Your task to perform on an android device: move an email to a new category in the gmail app Image 0: 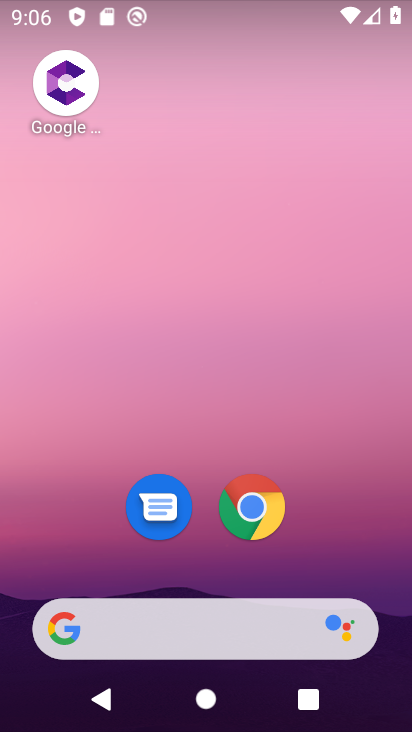
Step 0: drag from (331, 447) to (269, 104)
Your task to perform on an android device: move an email to a new category in the gmail app Image 1: 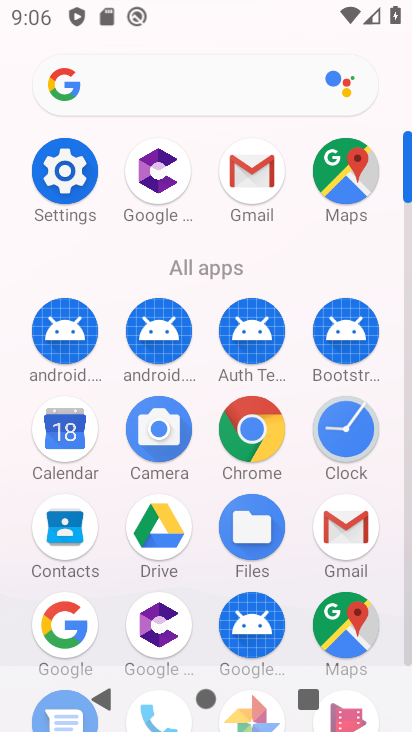
Step 1: click (233, 152)
Your task to perform on an android device: move an email to a new category in the gmail app Image 2: 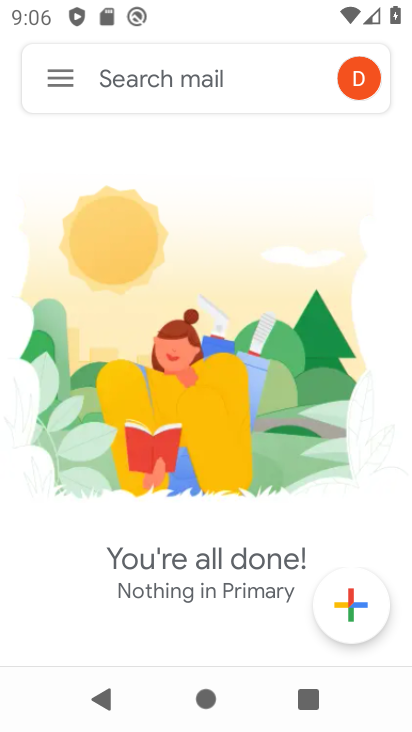
Step 2: click (74, 97)
Your task to perform on an android device: move an email to a new category in the gmail app Image 3: 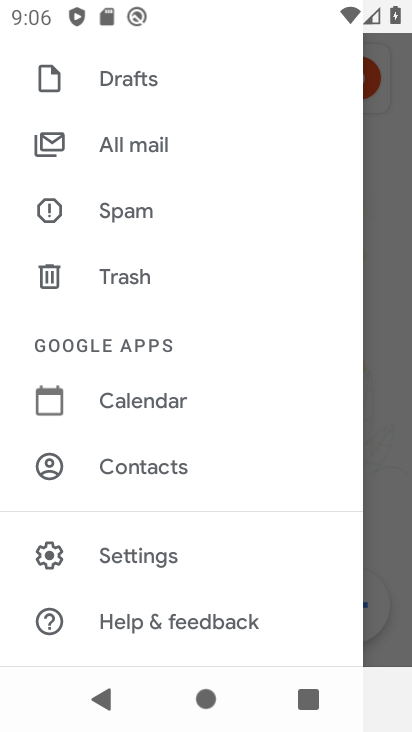
Step 3: click (124, 157)
Your task to perform on an android device: move an email to a new category in the gmail app Image 4: 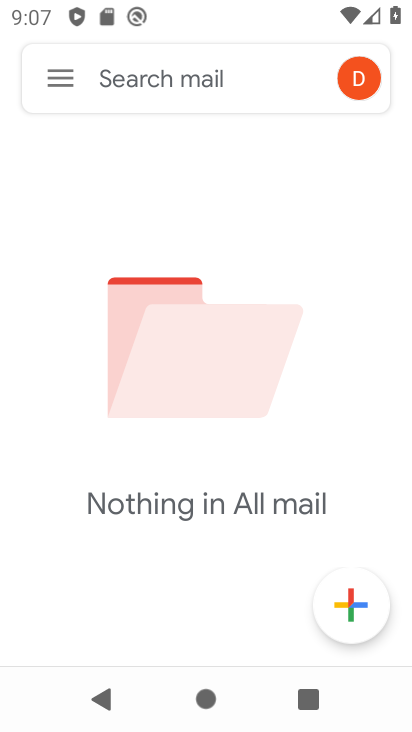
Step 4: task complete